Your task to perform on an android device: turn off location history Image 0: 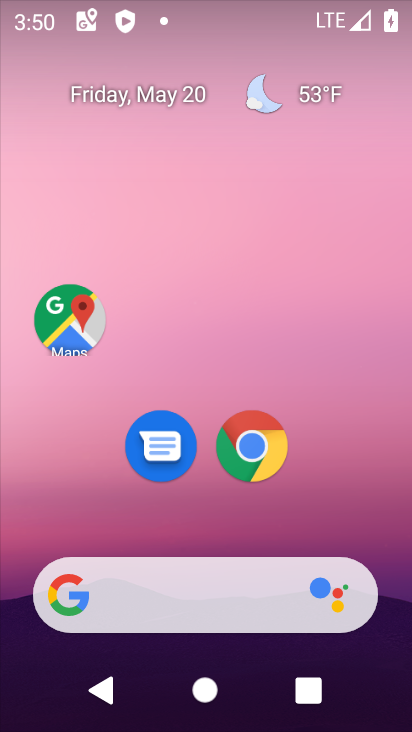
Step 0: drag from (363, 483) to (367, 46)
Your task to perform on an android device: turn off location history Image 1: 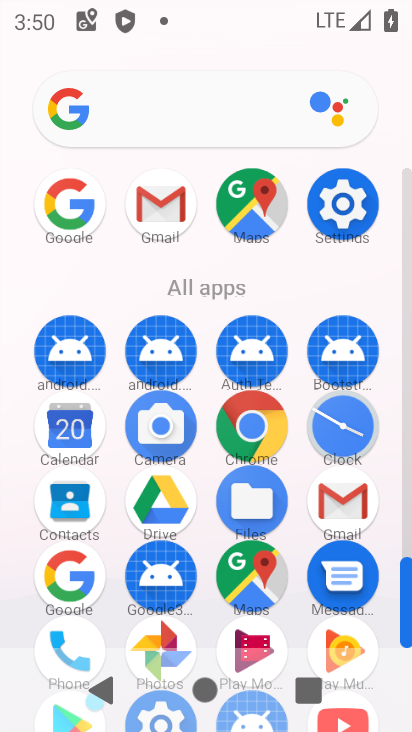
Step 1: click (329, 223)
Your task to perform on an android device: turn off location history Image 2: 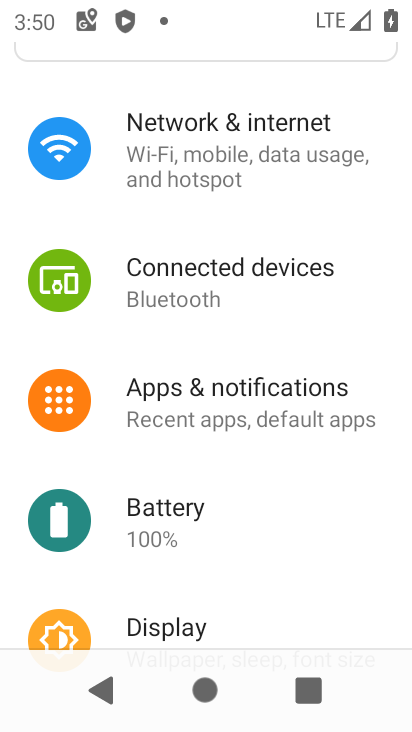
Step 2: drag from (227, 596) to (283, 211)
Your task to perform on an android device: turn off location history Image 3: 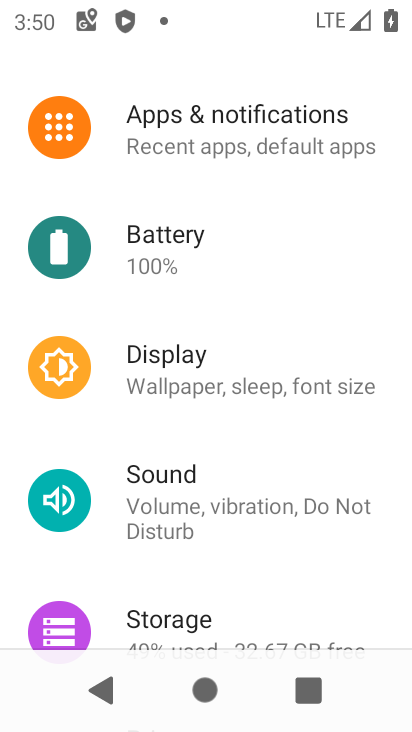
Step 3: drag from (224, 570) to (281, 215)
Your task to perform on an android device: turn off location history Image 4: 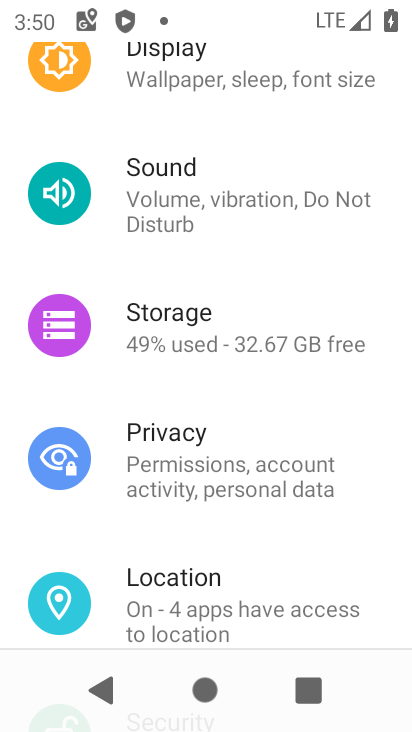
Step 4: drag from (205, 524) to (240, 253)
Your task to perform on an android device: turn off location history Image 5: 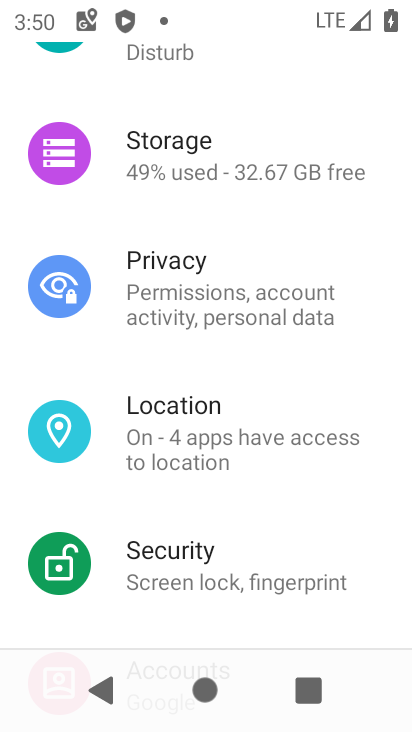
Step 5: click (148, 420)
Your task to perform on an android device: turn off location history Image 6: 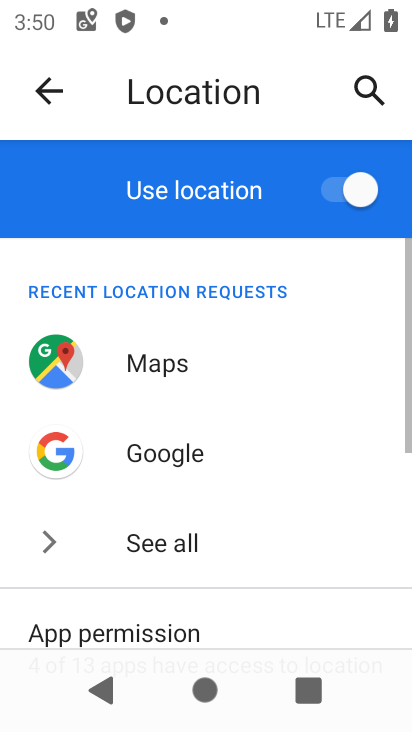
Step 6: drag from (222, 499) to (269, 190)
Your task to perform on an android device: turn off location history Image 7: 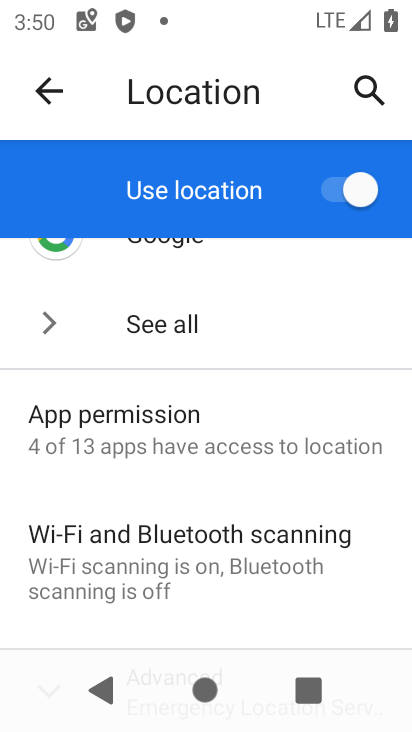
Step 7: drag from (197, 580) to (245, 267)
Your task to perform on an android device: turn off location history Image 8: 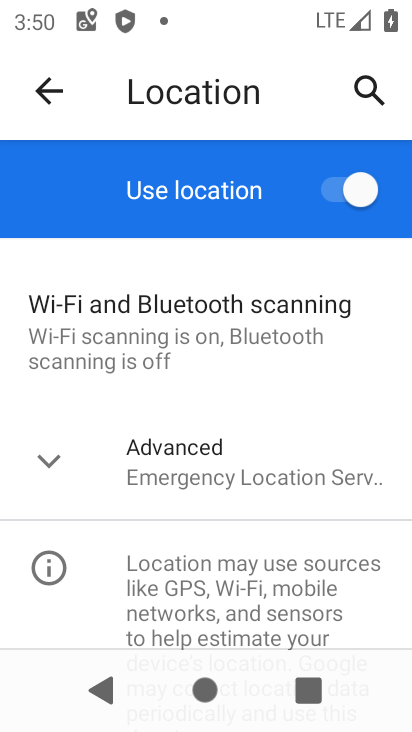
Step 8: click (143, 489)
Your task to perform on an android device: turn off location history Image 9: 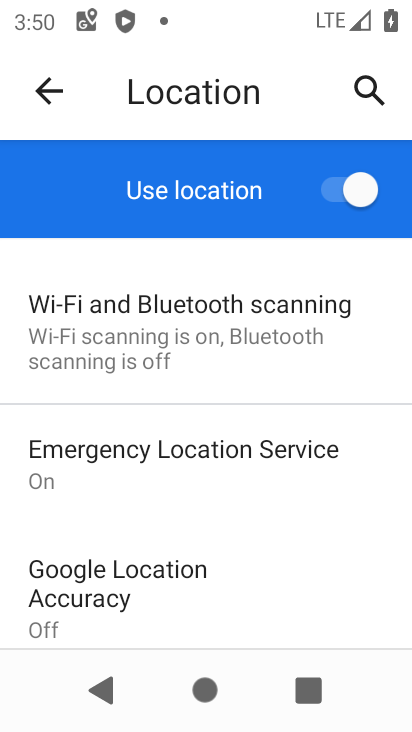
Step 9: drag from (171, 545) to (151, 276)
Your task to perform on an android device: turn off location history Image 10: 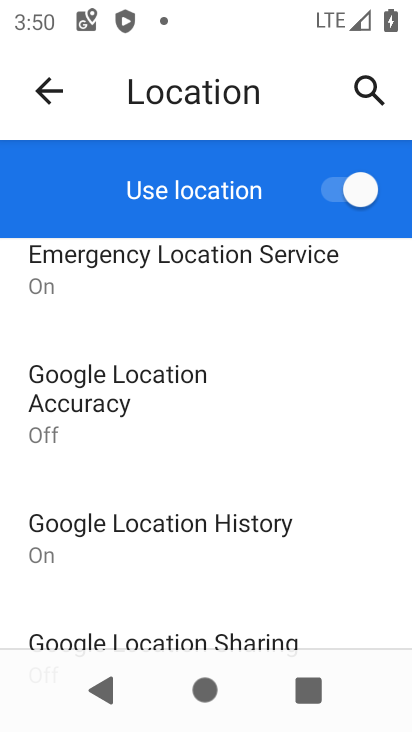
Step 10: click (144, 551)
Your task to perform on an android device: turn off location history Image 11: 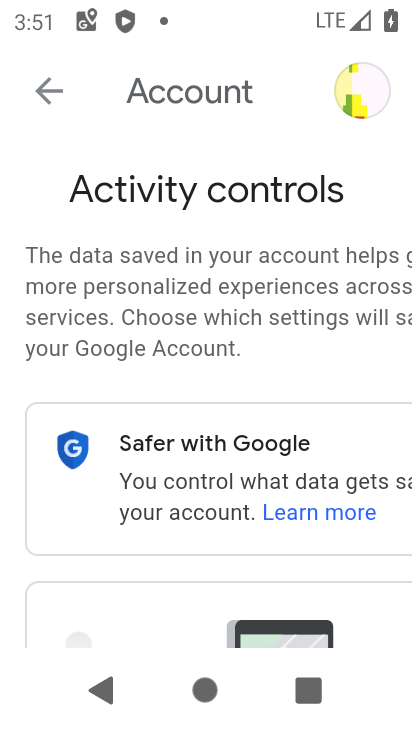
Step 11: drag from (217, 552) to (233, 225)
Your task to perform on an android device: turn off location history Image 12: 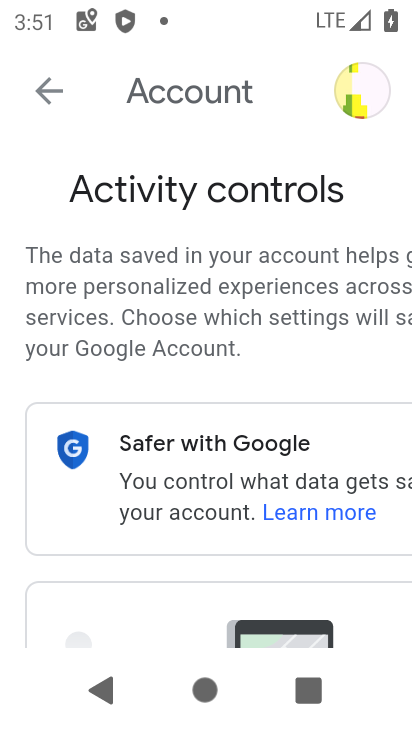
Step 12: drag from (198, 584) to (197, 216)
Your task to perform on an android device: turn off location history Image 13: 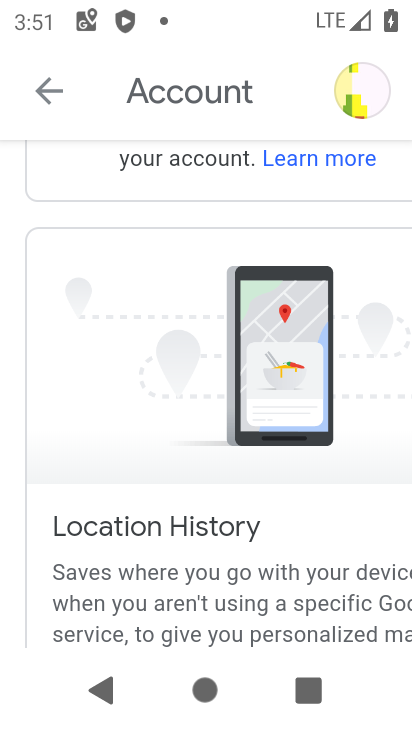
Step 13: drag from (225, 593) to (236, 212)
Your task to perform on an android device: turn off location history Image 14: 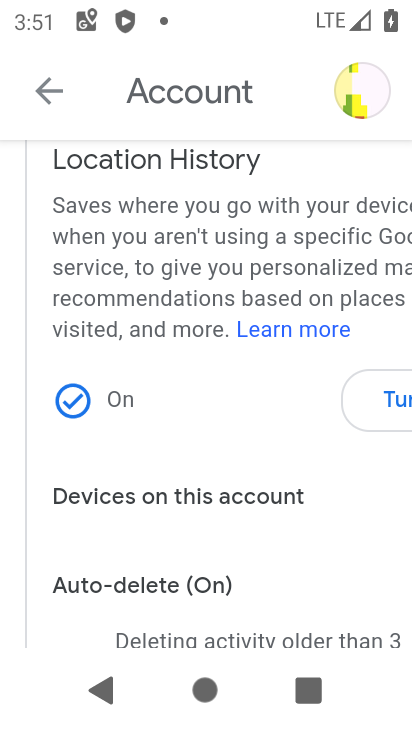
Step 14: drag from (301, 551) to (253, 567)
Your task to perform on an android device: turn off location history Image 15: 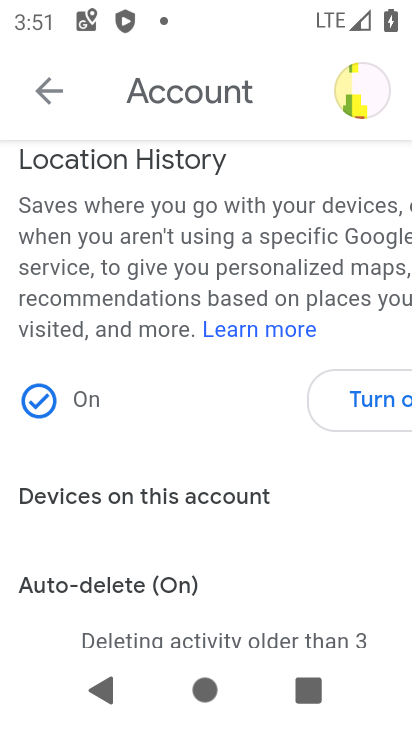
Step 15: click (372, 400)
Your task to perform on an android device: turn off location history Image 16: 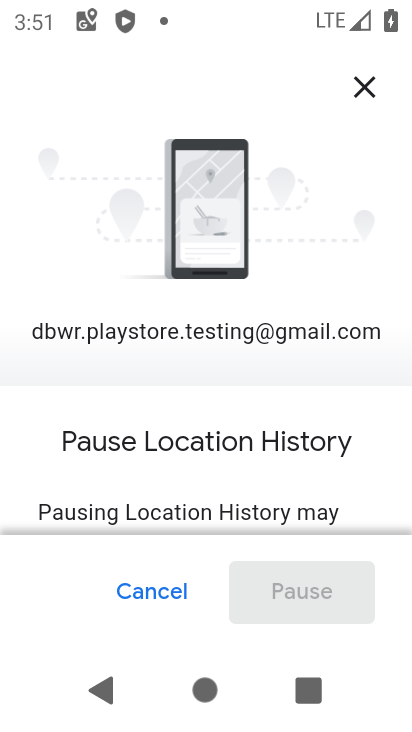
Step 16: drag from (311, 472) to (365, 149)
Your task to perform on an android device: turn off location history Image 17: 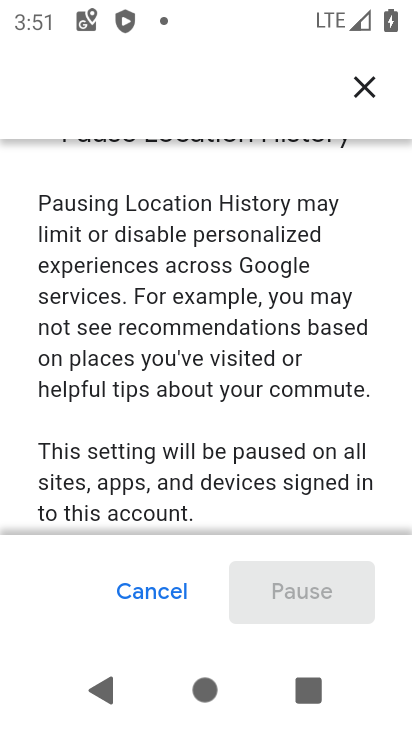
Step 17: drag from (294, 441) to (329, 220)
Your task to perform on an android device: turn off location history Image 18: 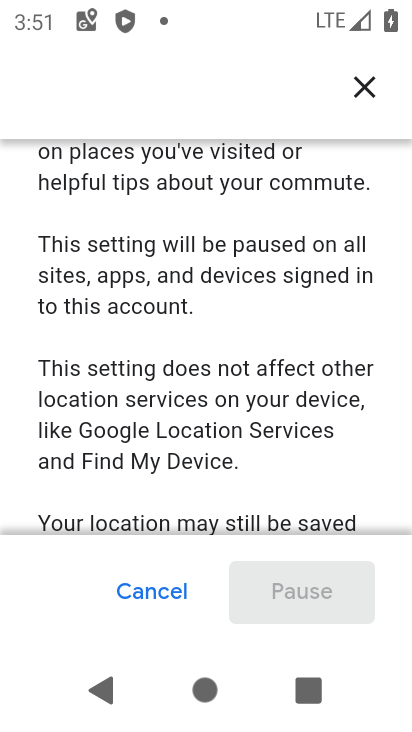
Step 18: drag from (283, 476) to (324, 260)
Your task to perform on an android device: turn off location history Image 19: 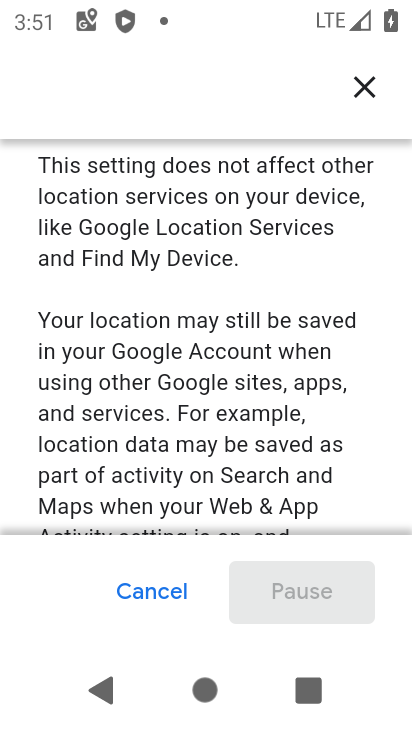
Step 19: drag from (330, 454) to (357, 184)
Your task to perform on an android device: turn off location history Image 20: 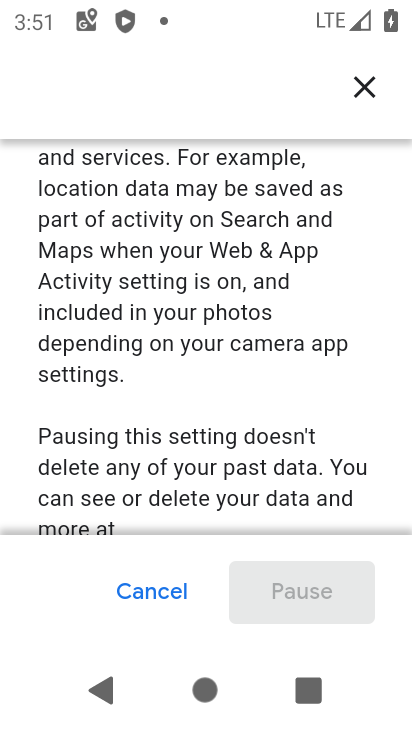
Step 20: drag from (282, 495) to (297, 162)
Your task to perform on an android device: turn off location history Image 21: 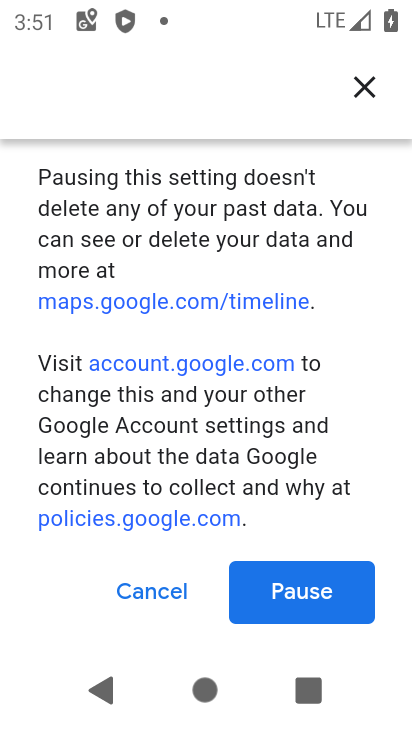
Step 21: click (301, 589)
Your task to perform on an android device: turn off location history Image 22: 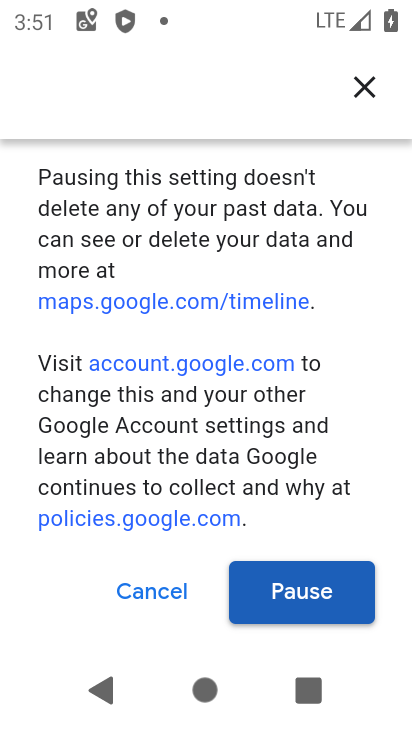
Step 22: click (302, 587)
Your task to perform on an android device: turn off location history Image 23: 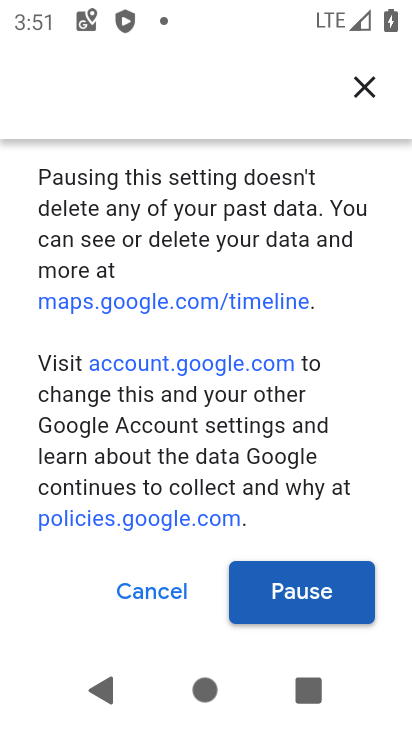
Step 23: drag from (310, 491) to (366, 209)
Your task to perform on an android device: turn off location history Image 24: 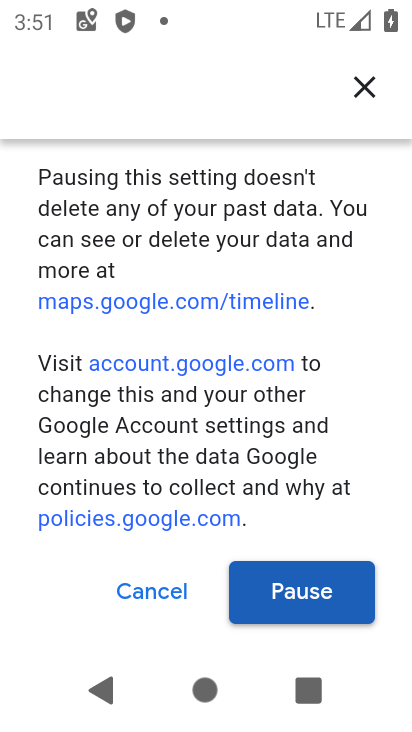
Step 24: click (284, 596)
Your task to perform on an android device: turn off location history Image 25: 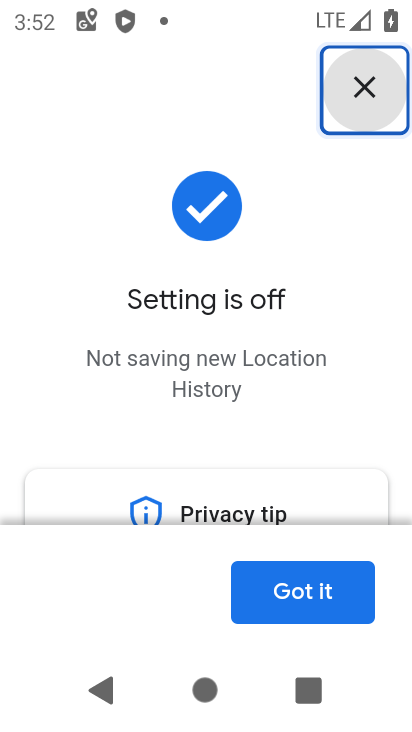
Step 25: click (284, 596)
Your task to perform on an android device: turn off location history Image 26: 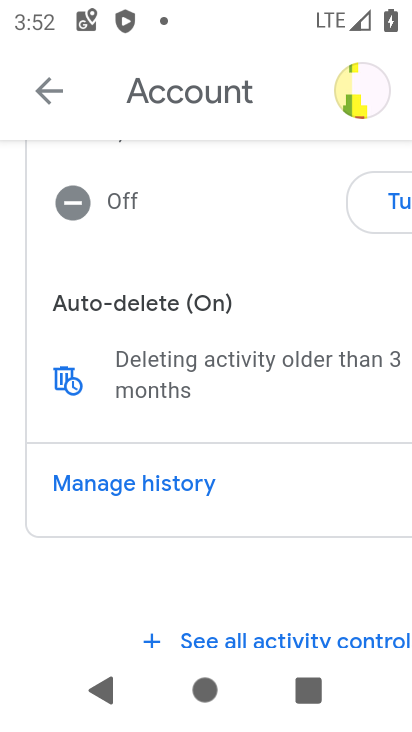
Step 26: task complete